Your task to perform on an android device: Is it going to rain this weekend? Image 0: 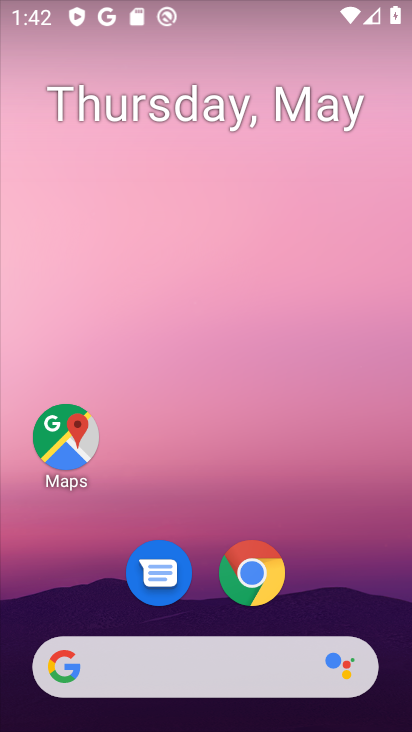
Step 0: click (250, 562)
Your task to perform on an android device: Is it going to rain this weekend? Image 1: 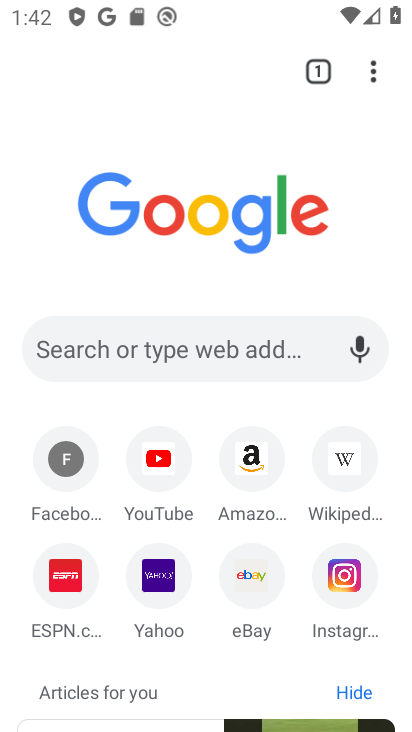
Step 1: click (137, 334)
Your task to perform on an android device: Is it going to rain this weekend? Image 2: 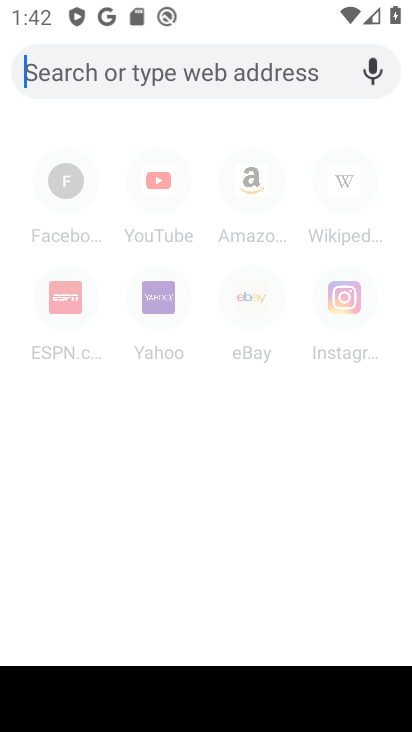
Step 2: type "Is it going to rain this weekend?"
Your task to perform on an android device: Is it going to rain this weekend? Image 3: 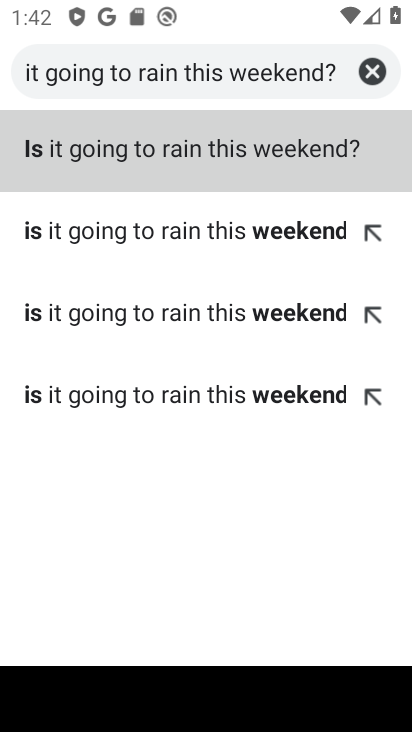
Step 3: click (193, 140)
Your task to perform on an android device: Is it going to rain this weekend? Image 4: 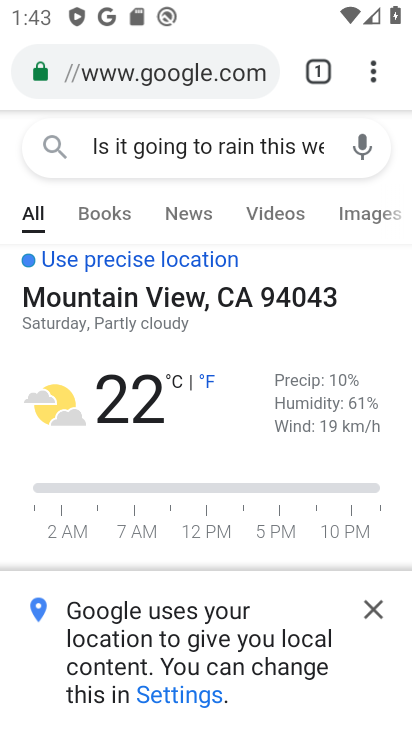
Step 4: task complete